Your task to perform on an android device: Go to calendar. Show me events next week Image 0: 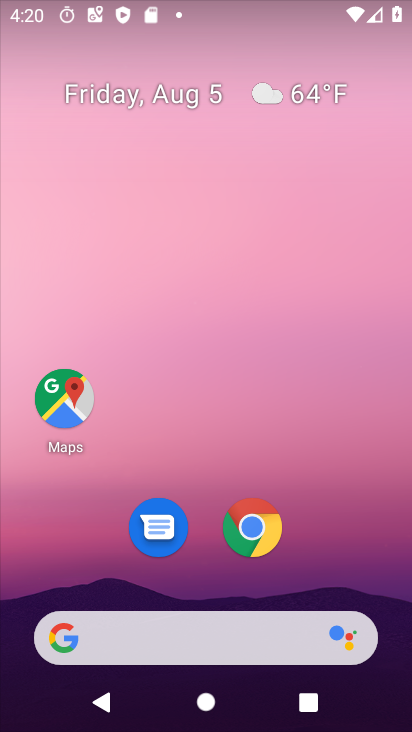
Step 0: press home button
Your task to perform on an android device: Go to calendar. Show me events next week Image 1: 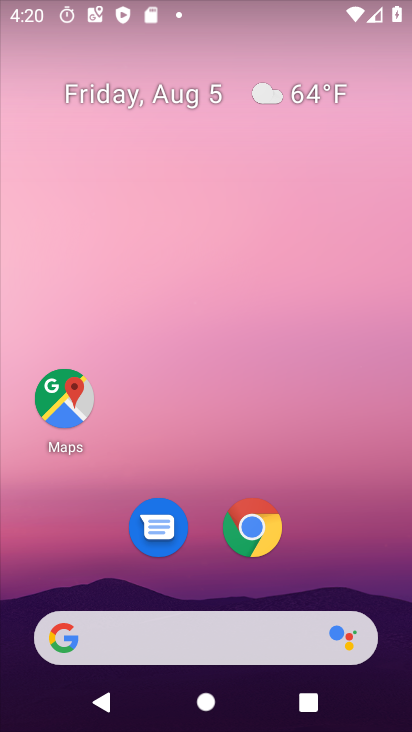
Step 1: press home button
Your task to perform on an android device: Go to calendar. Show me events next week Image 2: 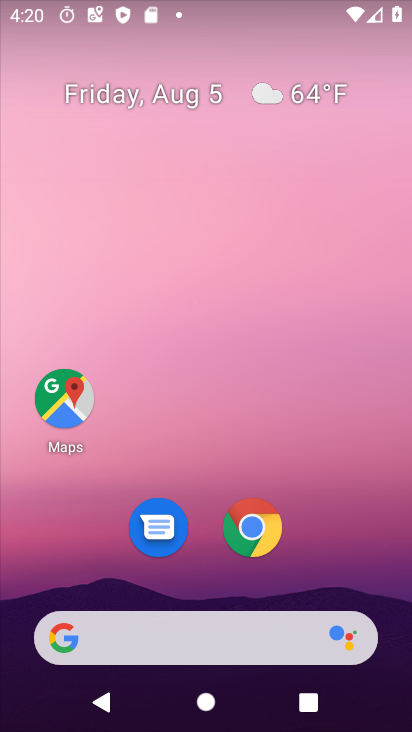
Step 2: drag from (203, 578) to (198, 95)
Your task to perform on an android device: Go to calendar. Show me events next week Image 3: 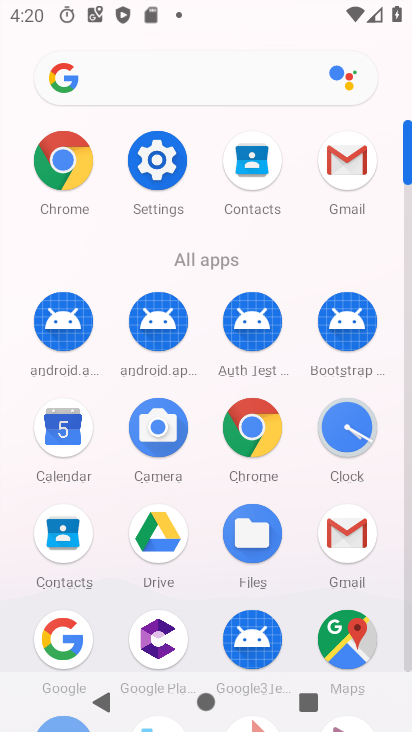
Step 3: click (62, 428)
Your task to perform on an android device: Go to calendar. Show me events next week Image 4: 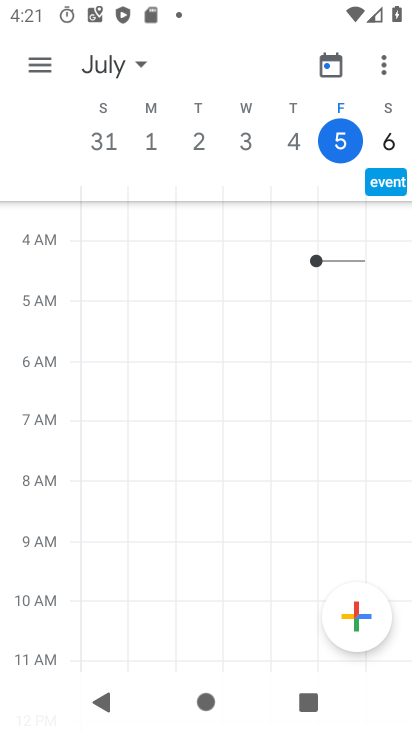
Step 4: drag from (360, 143) to (127, 168)
Your task to perform on an android device: Go to calendar. Show me events next week Image 5: 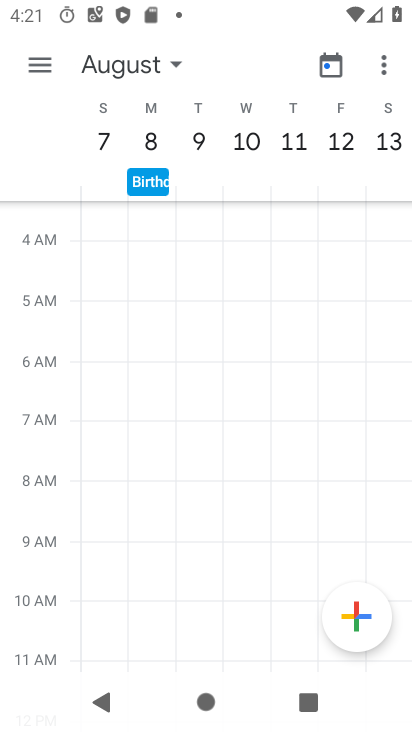
Step 5: click (40, 75)
Your task to perform on an android device: Go to calendar. Show me events next week Image 6: 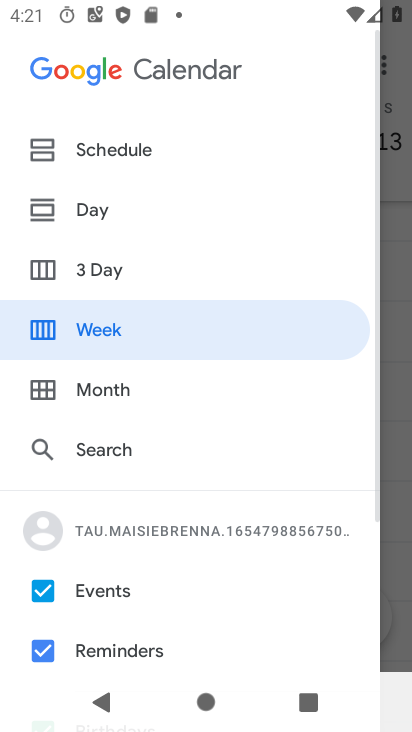
Step 6: click (99, 325)
Your task to perform on an android device: Go to calendar. Show me events next week Image 7: 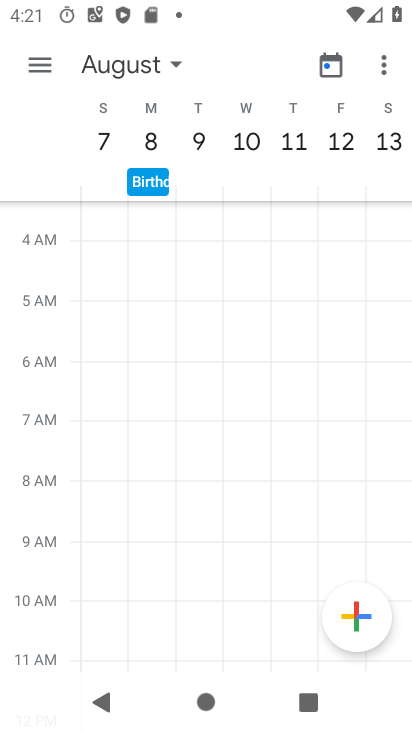
Step 7: click (36, 73)
Your task to perform on an android device: Go to calendar. Show me events next week Image 8: 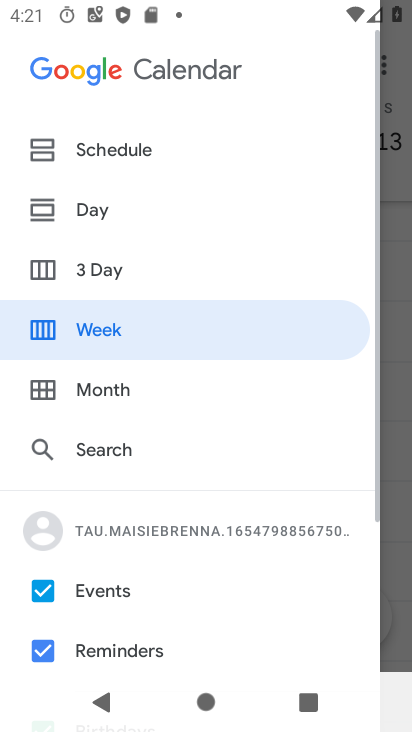
Step 8: drag from (130, 559) to (119, 125)
Your task to perform on an android device: Go to calendar. Show me events next week Image 9: 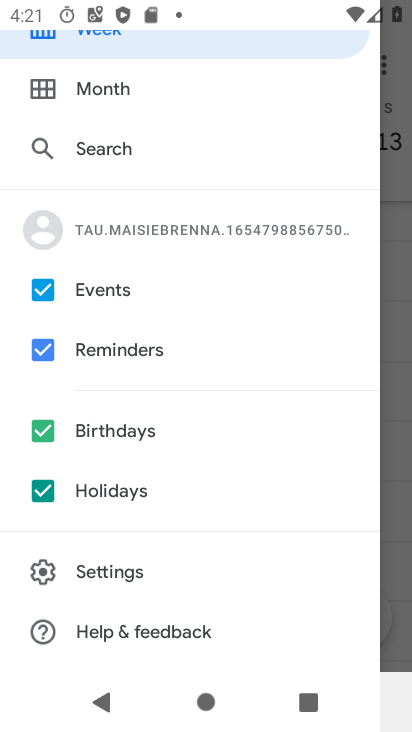
Step 9: click (44, 344)
Your task to perform on an android device: Go to calendar. Show me events next week Image 10: 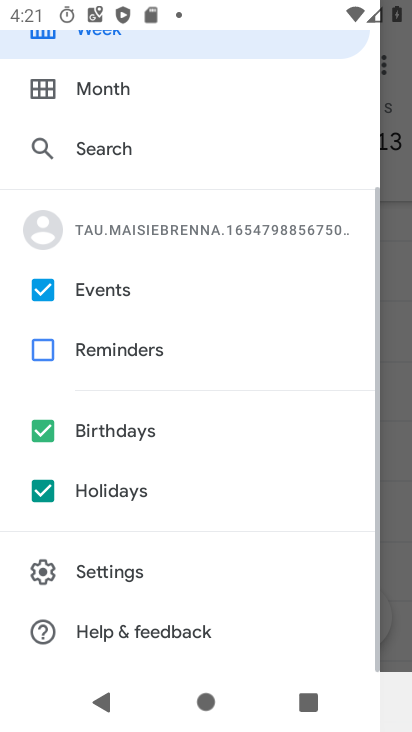
Step 10: click (38, 425)
Your task to perform on an android device: Go to calendar. Show me events next week Image 11: 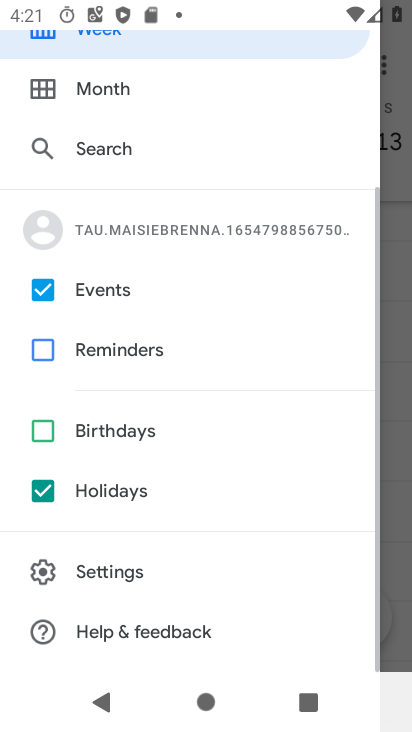
Step 11: click (40, 484)
Your task to perform on an android device: Go to calendar. Show me events next week Image 12: 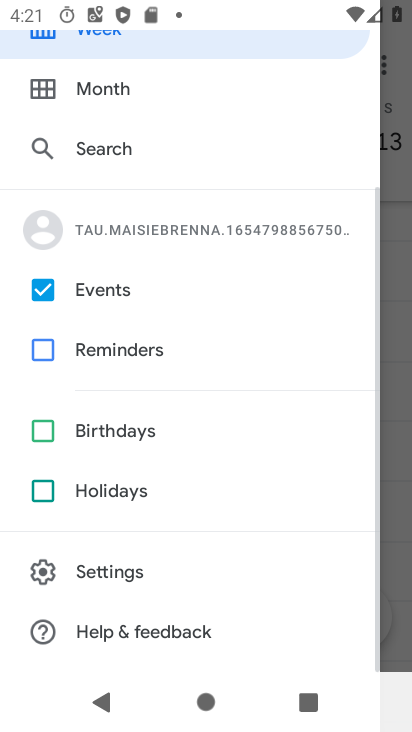
Step 12: drag from (96, 195) to (100, 653)
Your task to perform on an android device: Go to calendar. Show me events next week Image 13: 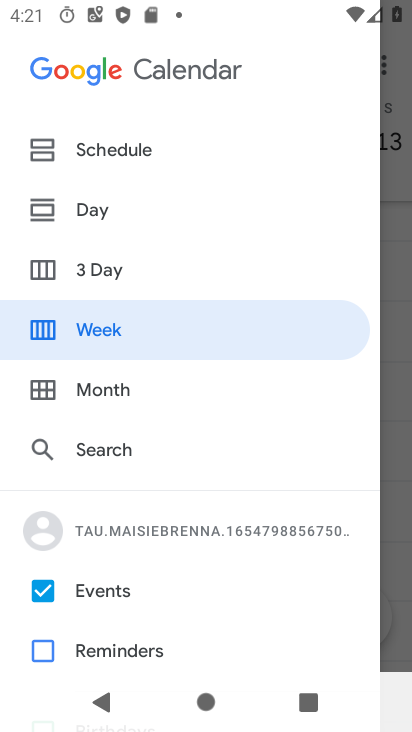
Step 13: click (62, 150)
Your task to perform on an android device: Go to calendar. Show me events next week Image 14: 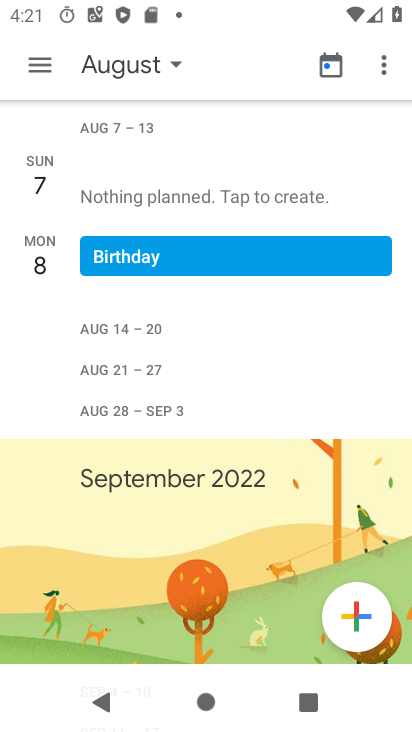
Step 14: task complete